Your task to perform on an android device: move an email to a new category in the gmail app Image 0: 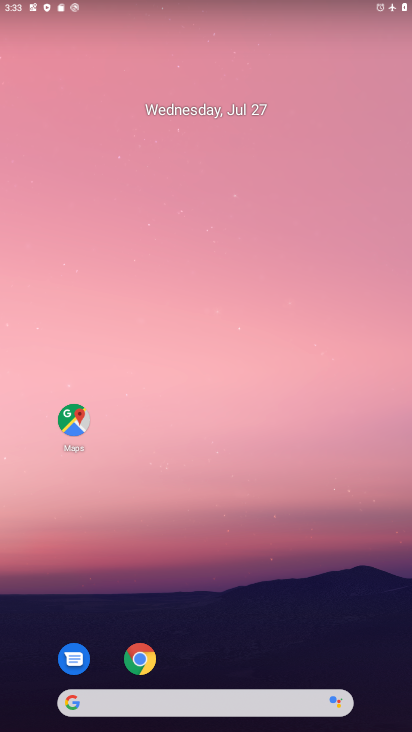
Step 0: drag from (311, 644) to (279, 34)
Your task to perform on an android device: move an email to a new category in the gmail app Image 1: 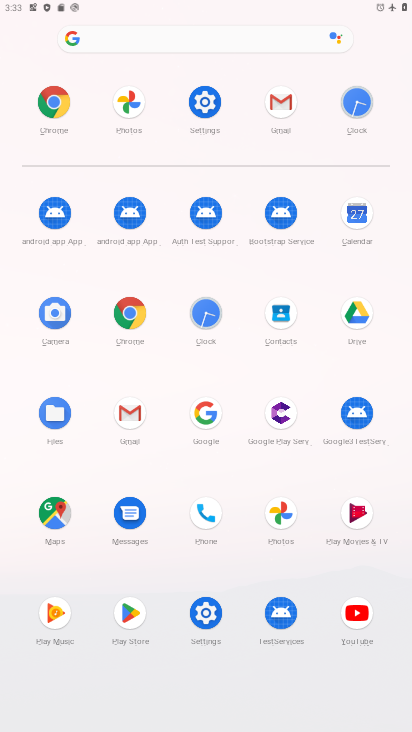
Step 1: click (274, 109)
Your task to perform on an android device: move an email to a new category in the gmail app Image 2: 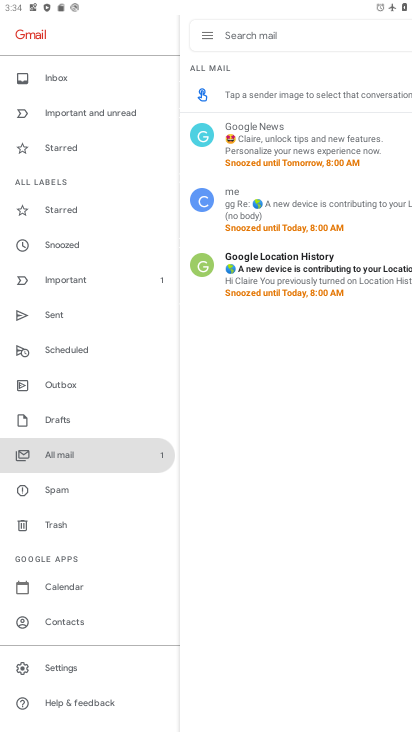
Step 2: click (207, 36)
Your task to perform on an android device: move an email to a new category in the gmail app Image 3: 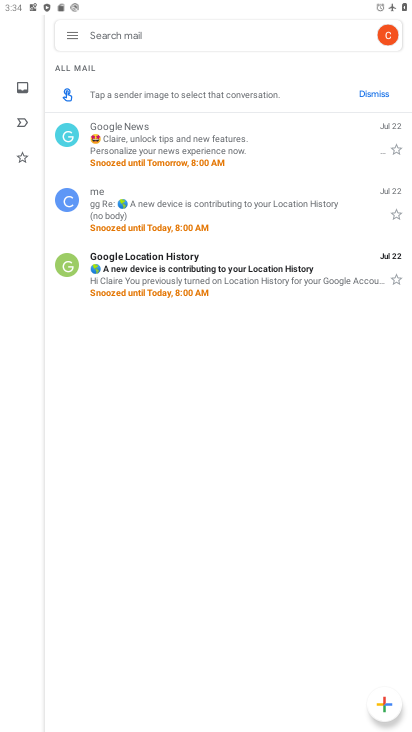
Step 3: click (239, 148)
Your task to perform on an android device: move an email to a new category in the gmail app Image 4: 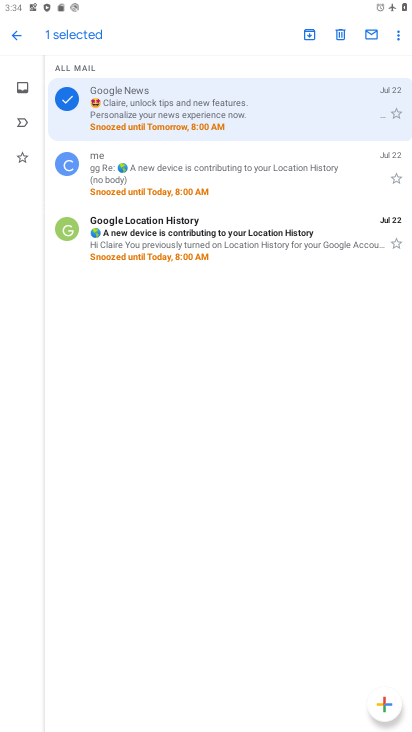
Step 4: click (400, 35)
Your task to perform on an android device: move an email to a new category in the gmail app Image 5: 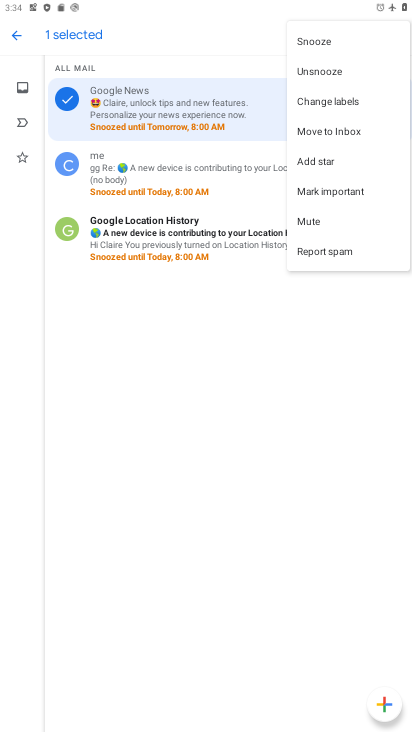
Step 5: click (369, 134)
Your task to perform on an android device: move an email to a new category in the gmail app Image 6: 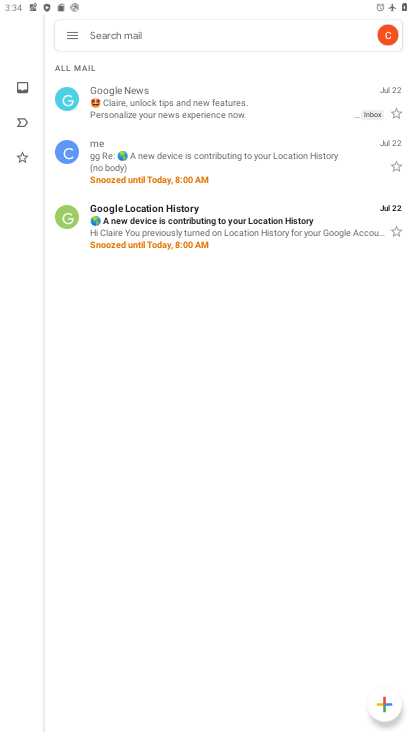
Step 6: task complete